Your task to perform on an android device: change your default location settings in chrome Image 0: 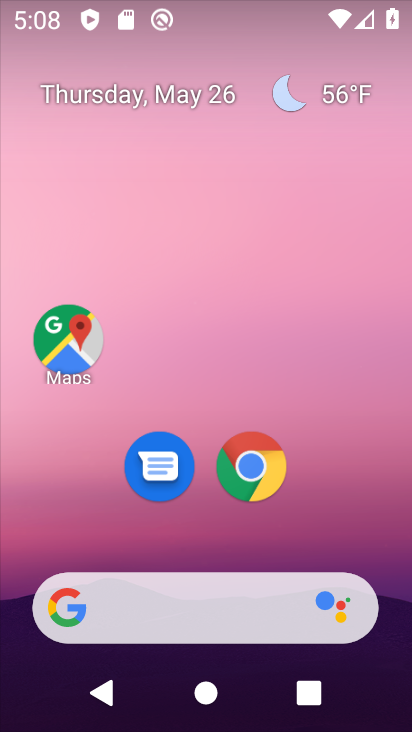
Step 0: drag from (298, 513) to (354, 75)
Your task to perform on an android device: change your default location settings in chrome Image 1: 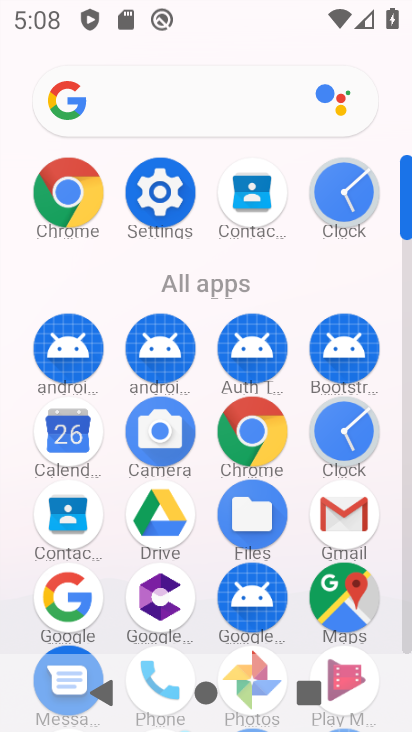
Step 1: click (244, 435)
Your task to perform on an android device: change your default location settings in chrome Image 2: 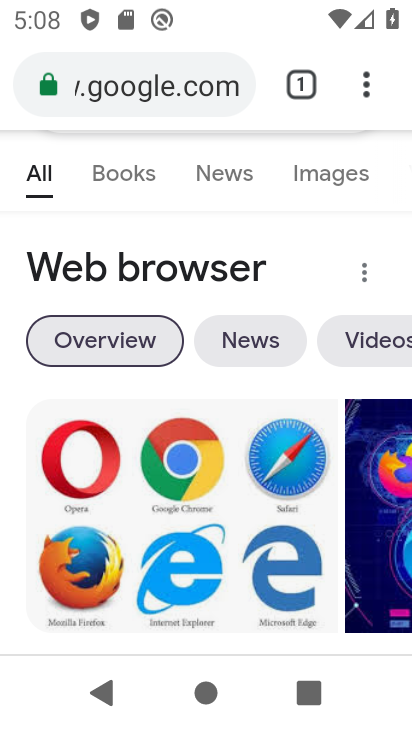
Step 2: drag from (366, 83) to (190, 502)
Your task to perform on an android device: change your default location settings in chrome Image 3: 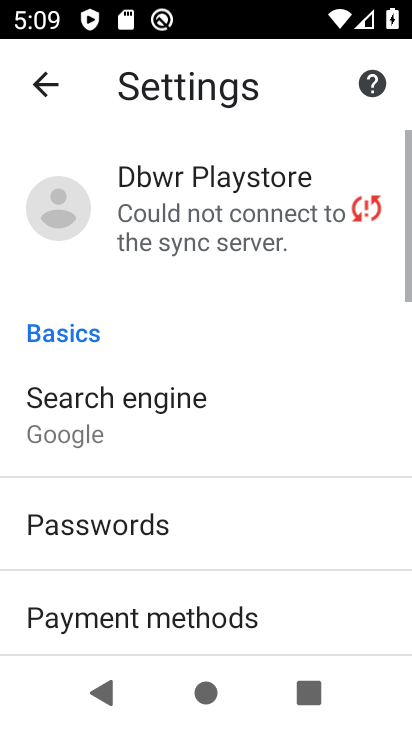
Step 3: drag from (302, 596) to (304, 195)
Your task to perform on an android device: change your default location settings in chrome Image 4: 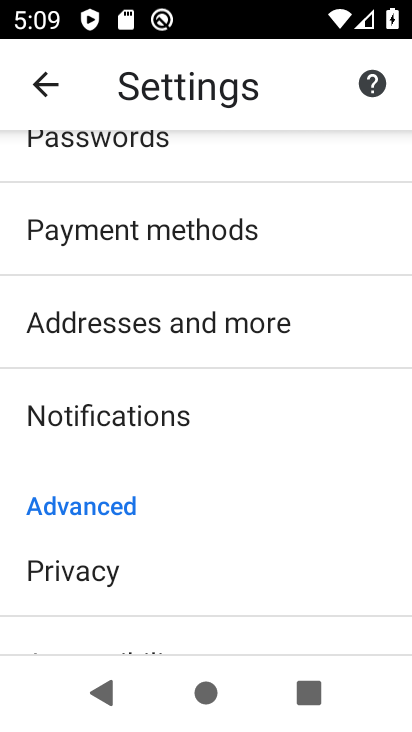
Step 4: drag from (278, 562) to (298, 216)
Your task to perform on an android device: change your default location settings in chrome Image 5: 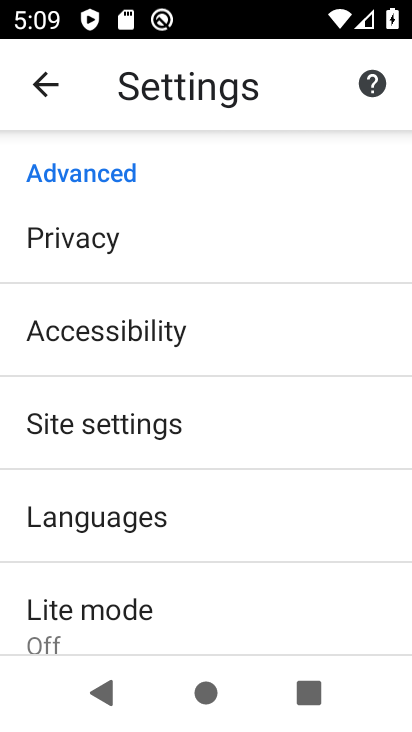
Step 5: click (127, 412)
Your task to perform on an android device: change your default location settings in chrome Image 6: 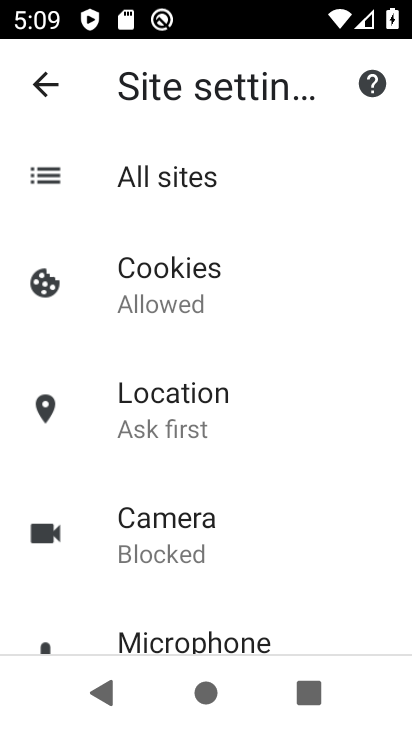
Step 6: click (234, 410)
Your task to perform on an android device: change your default location settings in chrome Image 7: 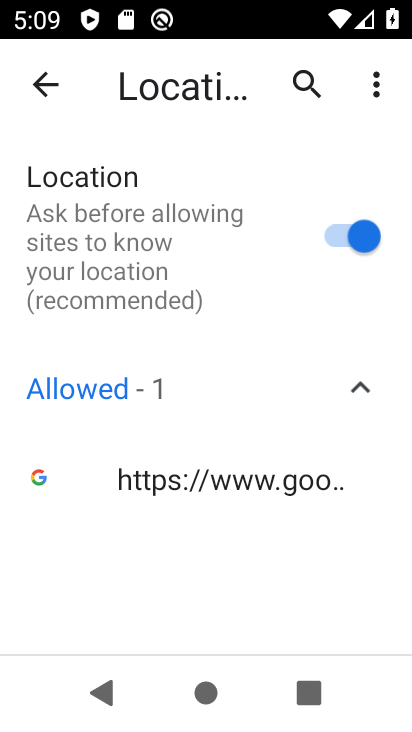
Step 7: click (332, 238)
Your task to perform on an android device: change your default location settings in chrome Image 8: 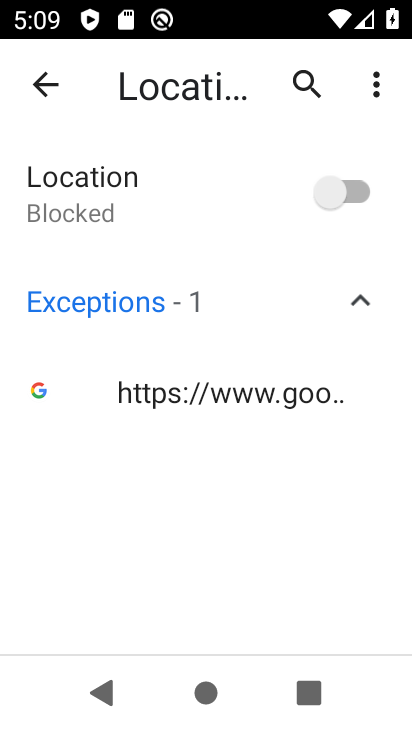
Step 8: task complete